Your task to perform on an android device: What's on my calendar today? Image 0: 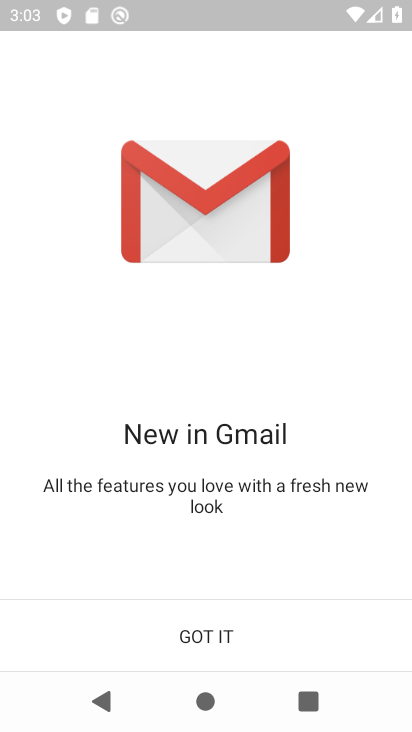
Step 0: press home button
Your task to perform on an android device: What's on my calendar today? Image 1: 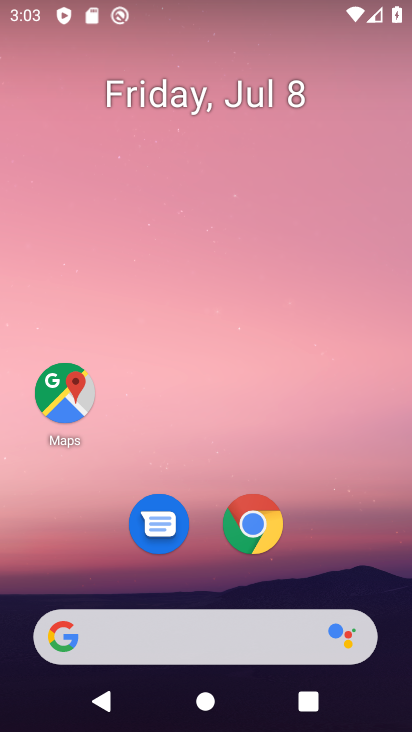
Step 1: drag from (309, 165) to (305, 36)
Your task to perform on an android device: What's on my calendar today? Image 2: 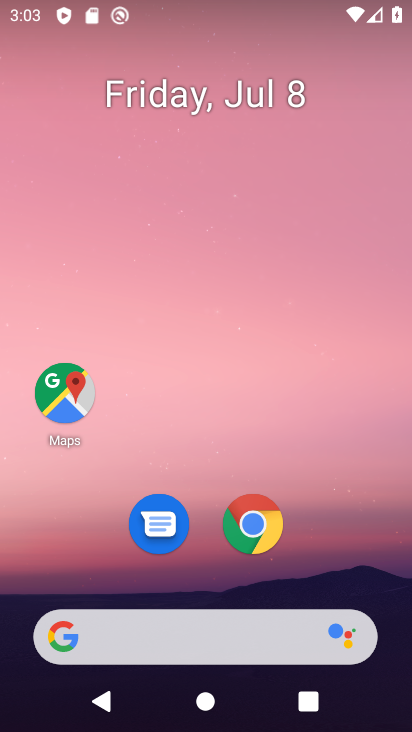
Step 2: drag from (209, 483) to (250, 0)
Your task to perform on an android device: What's on my calendar today? Image 3: 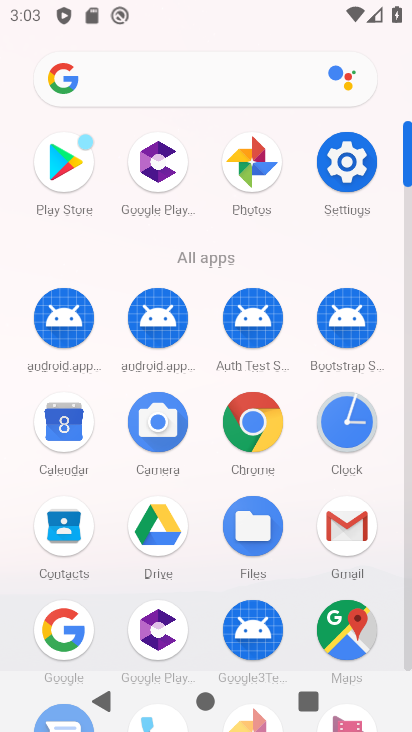
Step 3: click (81, 427)
Your task to perform on an android device: What's on my calendar today? Image 4: 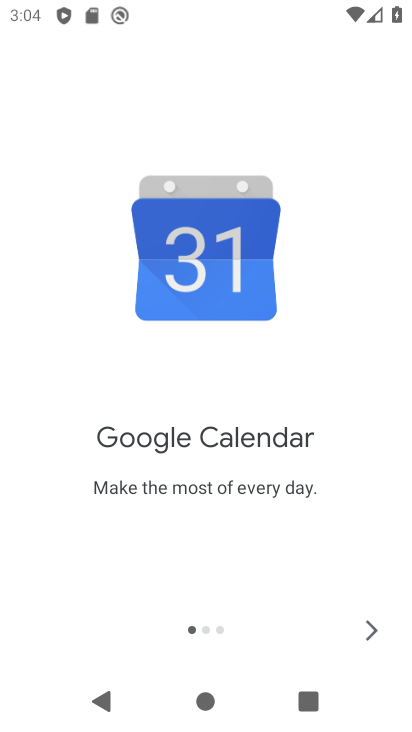
Step 4: click (373, 630)
Your task to perform on an android device: What's on my calendar today? Image 5: 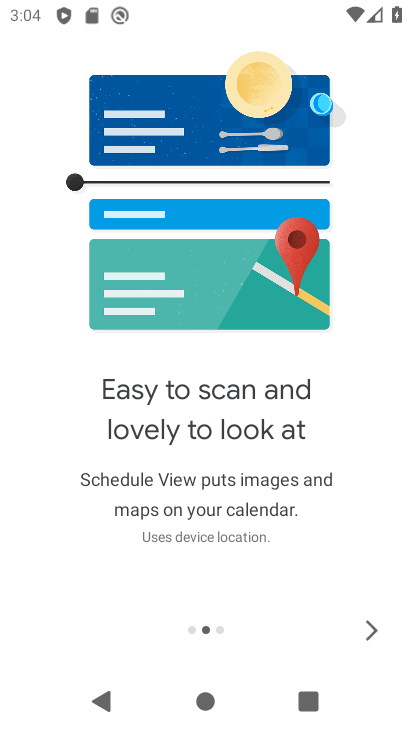
Step 5: click (373, 634)
Your task to perform on an android device: What's on my calendar today? Image 6: 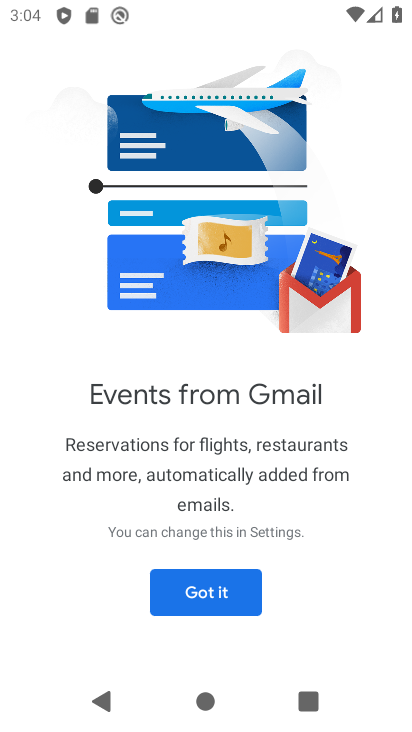
Step 6: click (245, 592)
Your task to perform on an android device: What's on my calendar today? Image 7: 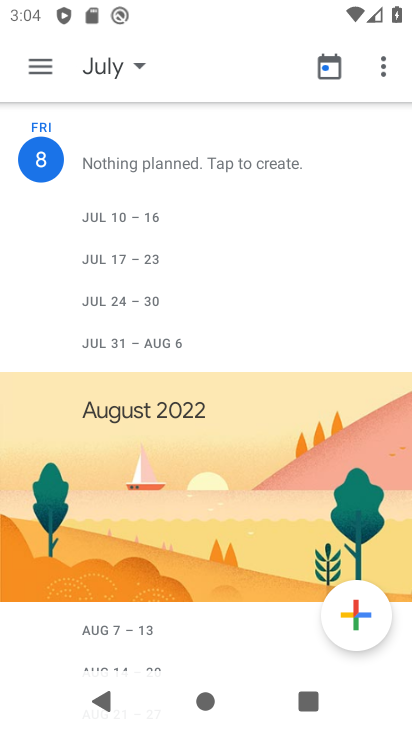
Step 7: task complete